Your task to perform on an android device: What's on my calendar tomorrow? Image 0: 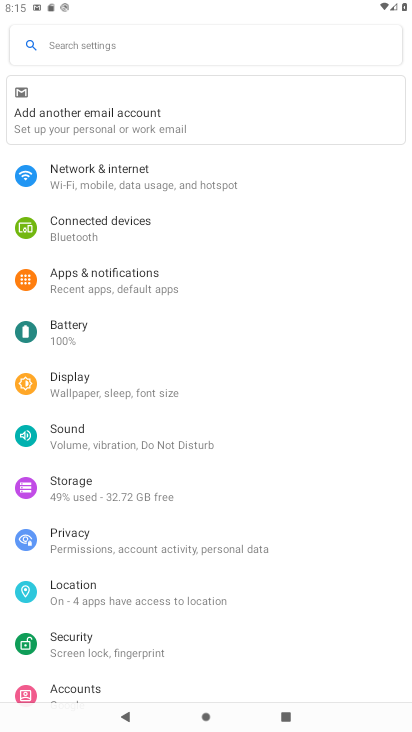
Step 0: press home button
Your task to perform on an android device: What's on my calendar tomorrow? Image 1: 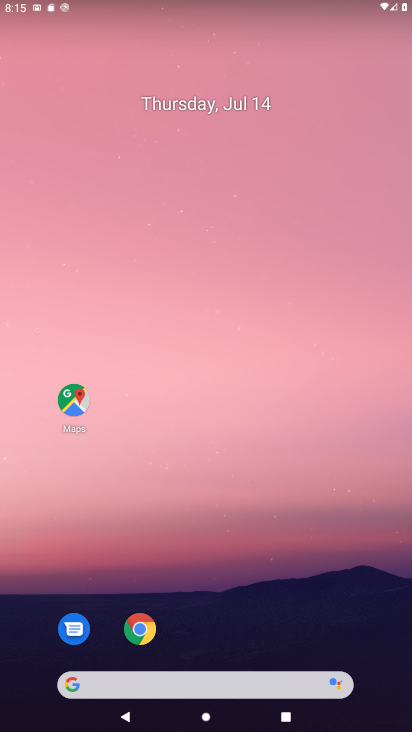
Step 1: drag from (247, 632) to (230, 3)
Your task to perform on an android device: What's on my calendar tomorrow? Image 2: 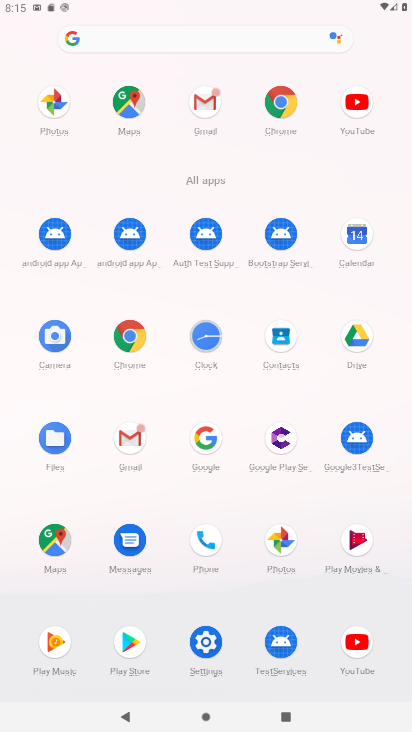
Step 2: click (364, 239)
Your task to perform on an android device: What's on my calendar tomorrow? Image 3: 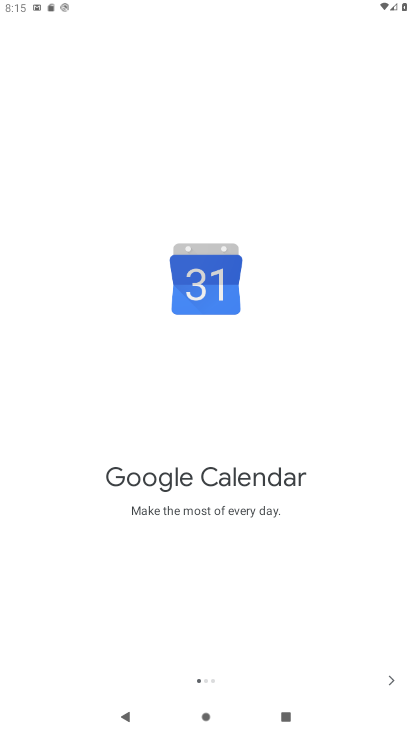
Step 3: click (384, 677)
Your task to perform on an android device: What's on my calendar tomorrow? Image 4: 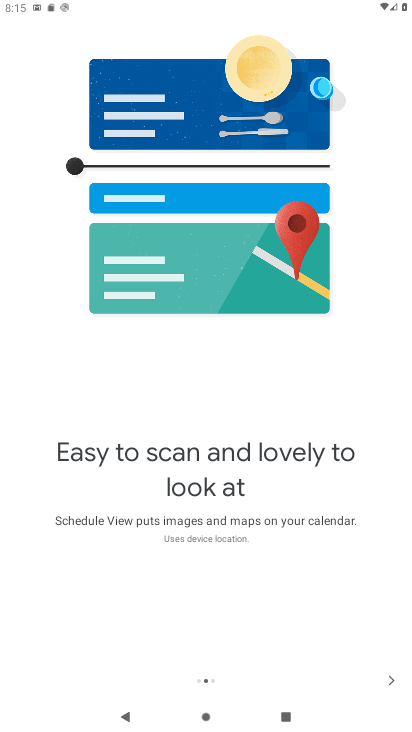
Step 4: click (384, 677)
Your task to perform on an android device: What's on my calendar tomorrow? Image 5: 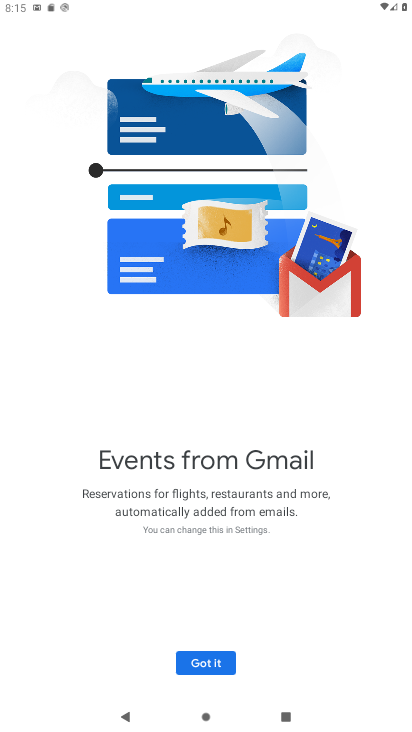
Step 5: click (202, 657)
Your task to perform on an android device: What's on my calendar tomorrow? Image 6: 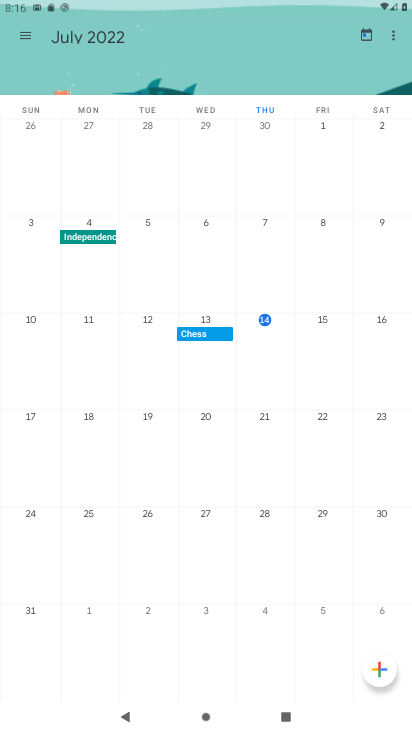
Step 6: click (27, 35)
Your task to perform on an android device: What's on my calendar tomorrow? Image 7: 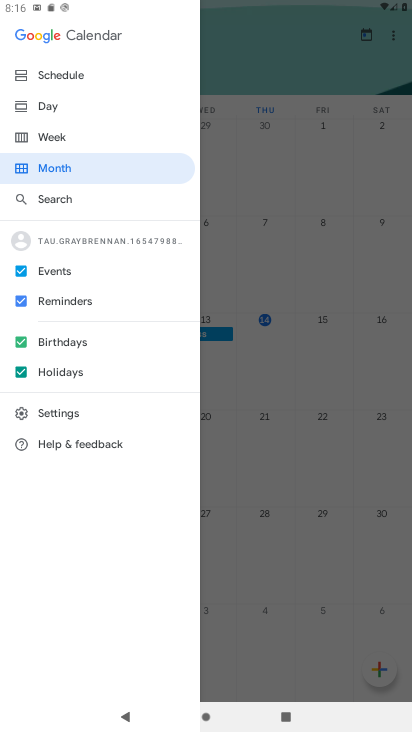
Step 7: click (63, 138)
Your task to perform on an android device: What's on my calendar tomorrow? Image 8: 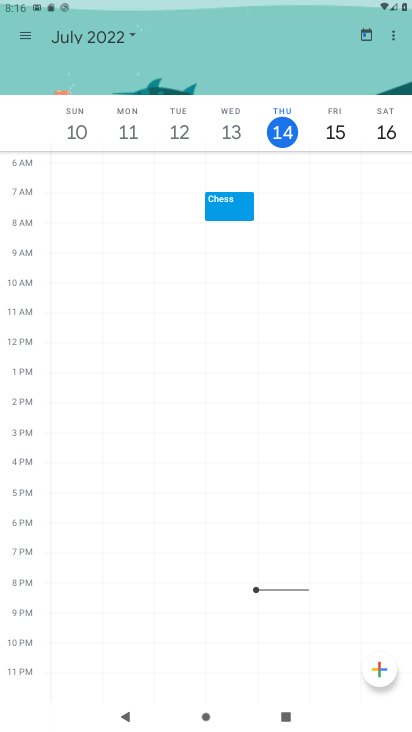
Step 8: task complete